Your task to perform on an android device: turn on improve location accuracy Image 0: 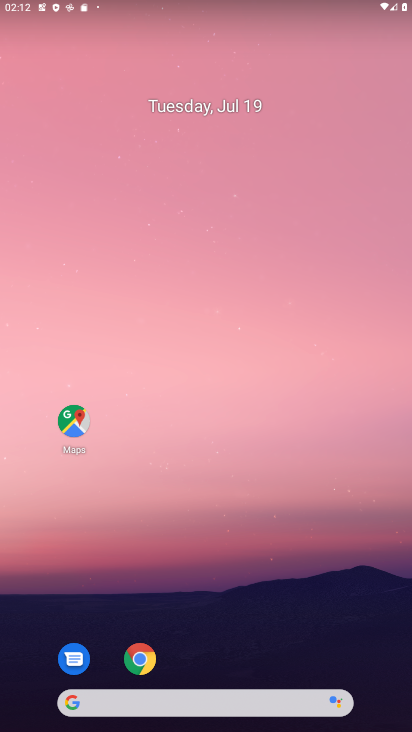
Step 0: press home button
Your task to perform on an android device: turn on improve location accuracy Image 1: 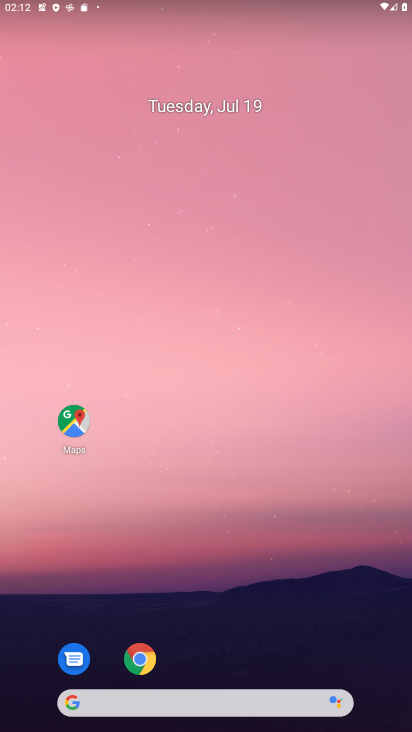
Step 1: drag from (257, 650) to (221, 49)
Your task to perform on an android device: turn on improve location accuracy Image 2: 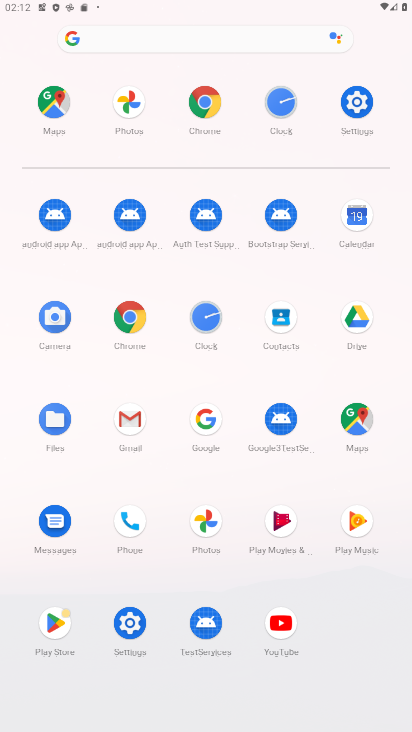
Step 2: click (146, 625)
Your task to perform on an android device: turn on improve location accuracy Image 3: 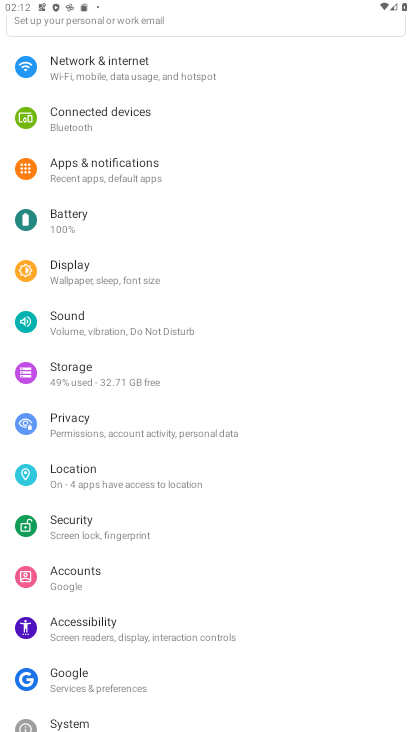
Step 3: drag from (120, 666) to (71, 241)
Your task to perform on an android device: turn on improve location accuracy Image 4: 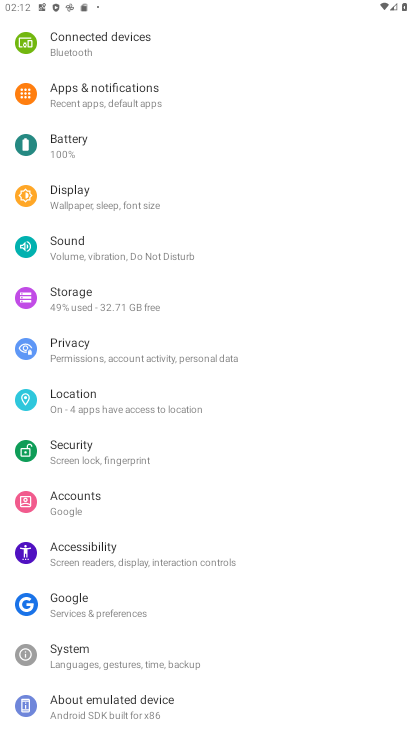
Step 4: click (97, 419)
Your task to perform on an android device: turn on improve location accuracy Image 5: 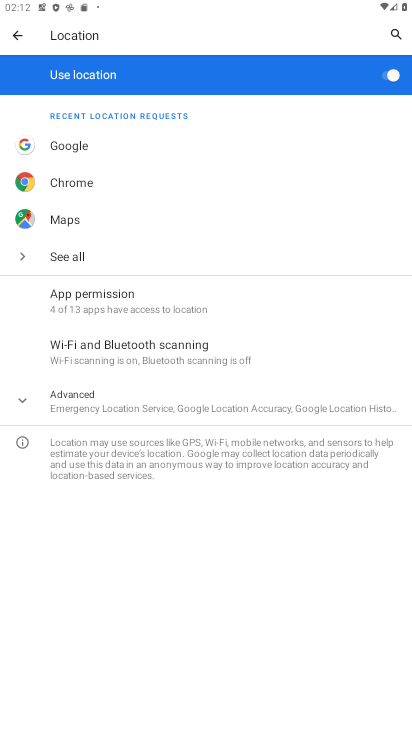
Step 5: click (110, 393)
Your task to perform on an android device: turn on improve location accuracy Image 6: 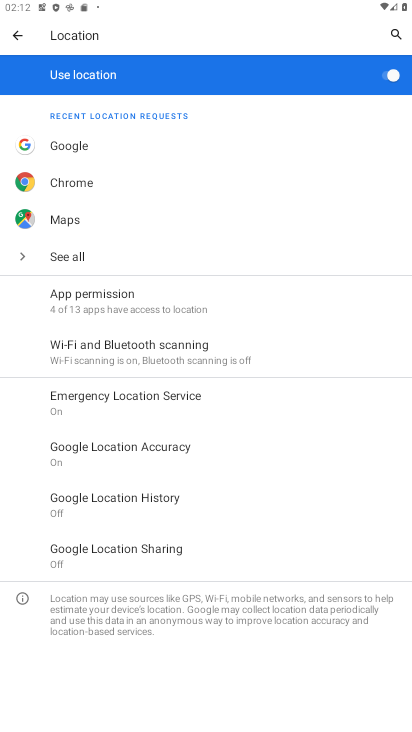
Step 6: click (136, 442)
Your task to perform on an android device: turn on improve location accuracy Image 7: 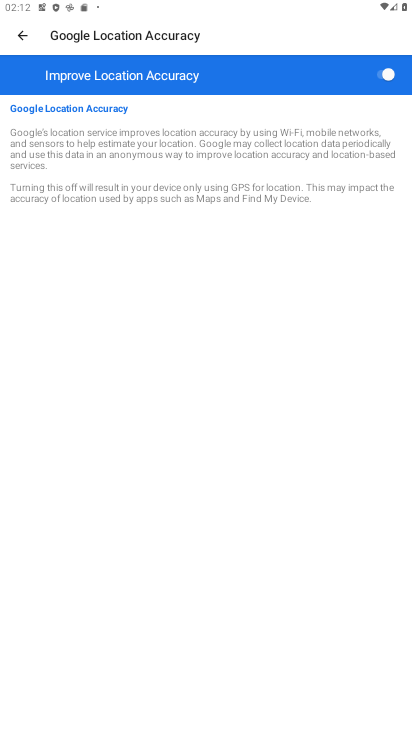
Step 7: task complete